Your task to perform on an android device: find snoozed emails in the gmail app Image 0: 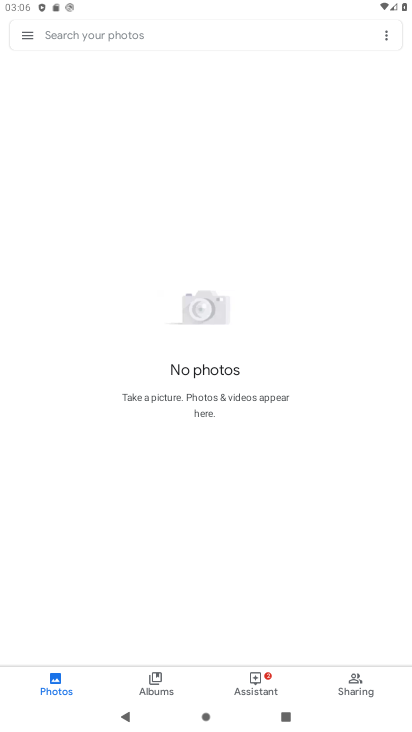
Step 0: press home button
Your task to perform on an android device: find snoozed emails in the gmail app Image 1: 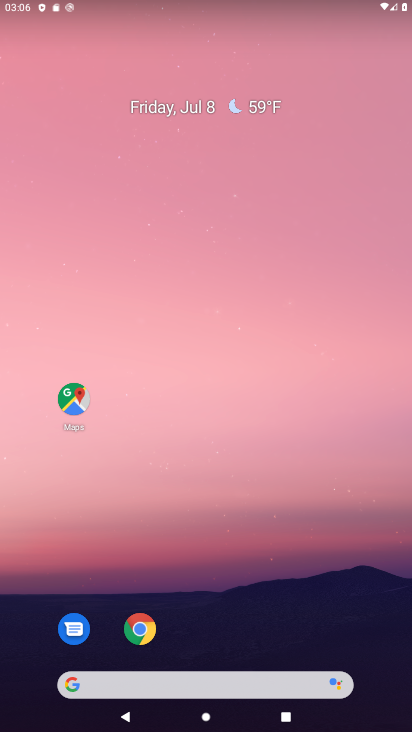
Step 1: drag from (218, 657) to (245, 60)
Your task to perform on an android device: find snoozed emails in the gmail app Image 2: 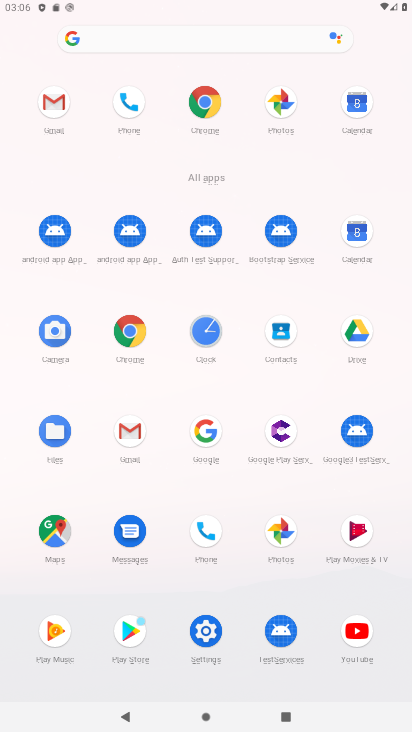
Step 2: click (128, 423)
Your task to perform on an android device: find snoozed emails in the gmail app Image 3: 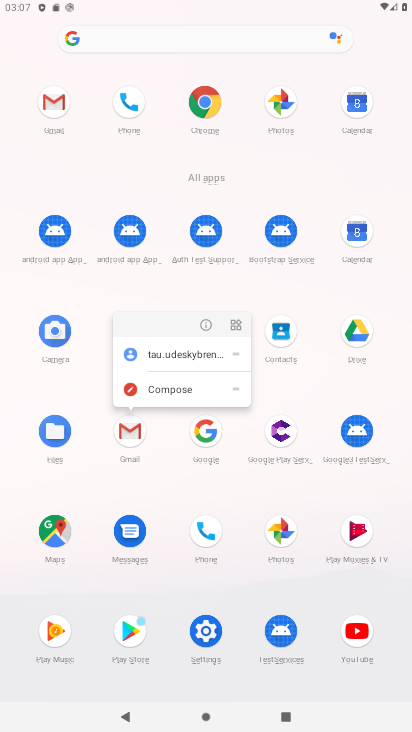
Step 3: click (129, 429)
Your task to perform on an android device: find snoozed emails in the gmail app Image 4: 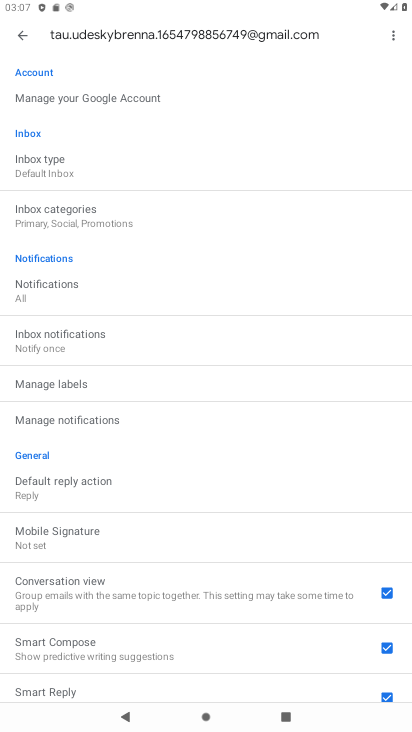
Step 4: click (22, 37)
Your task to perform on an android device: find snoozed emails in the gmail app Image 5: 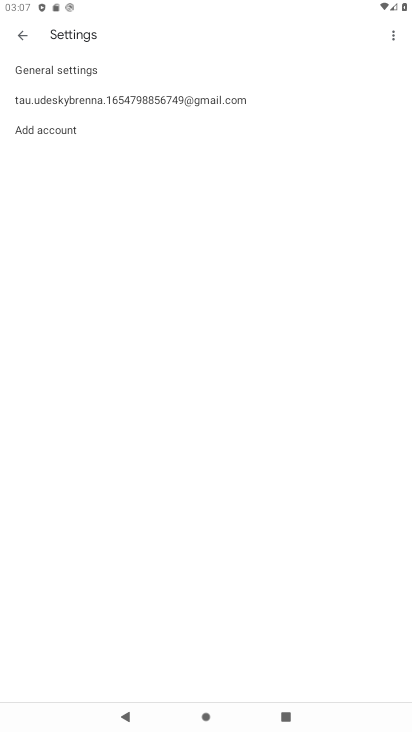
Step 5: click (25, 34)
Your task to perform on an android device: find snoozed emails in the gmail app Image 6: 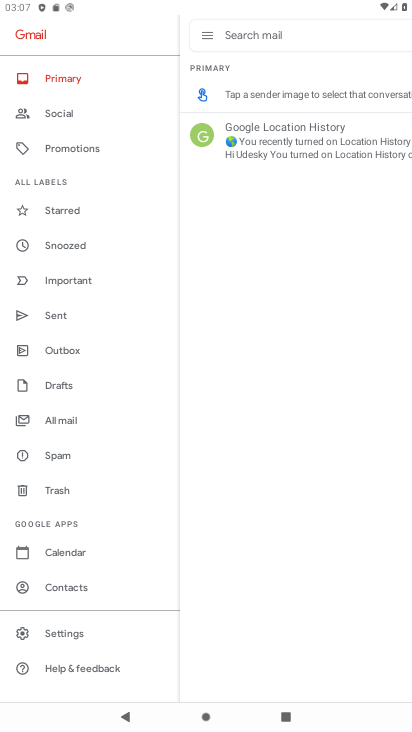
Step 6: click (74, 240)
Your task to perform on an android device: find snoozed emails in the gmail app Image 7: 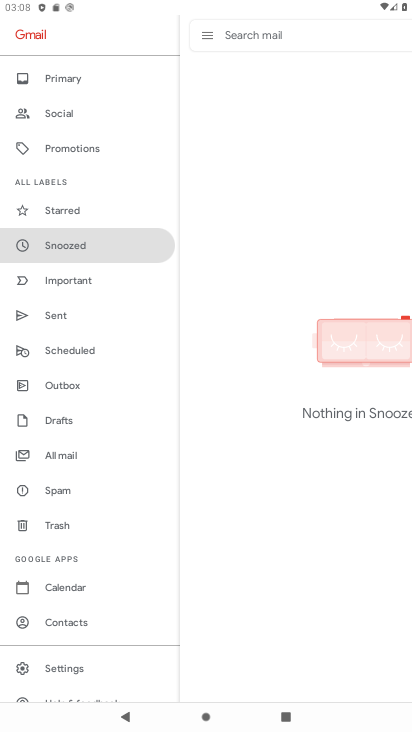
Step 7: task complete